Your task to perform on an android device: toggle pop-ups in chrome Image 0: 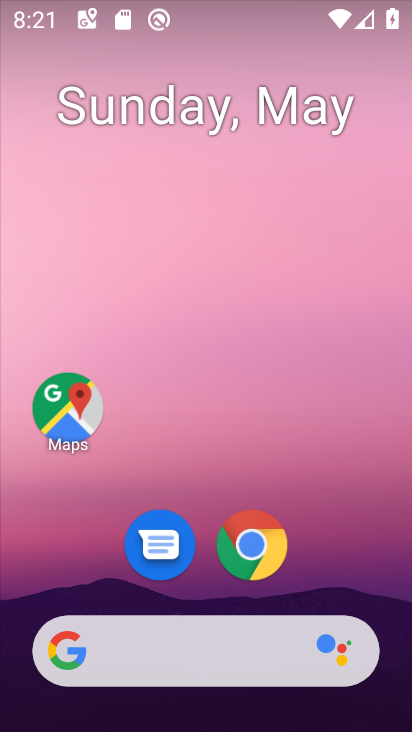
Step 0: click (274, 549)
Your task to perform on an android device: toggle pop-ups in chrome Image 1: 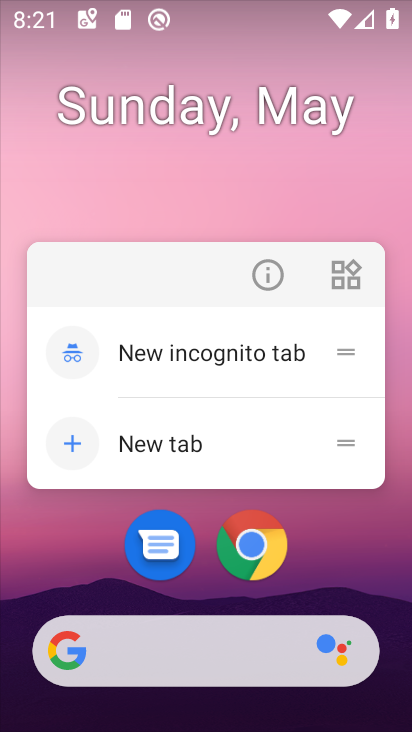
Step 1: click (272, 551)
Your task to perform on an android device: toggle pop-ups in chrome Image 2: 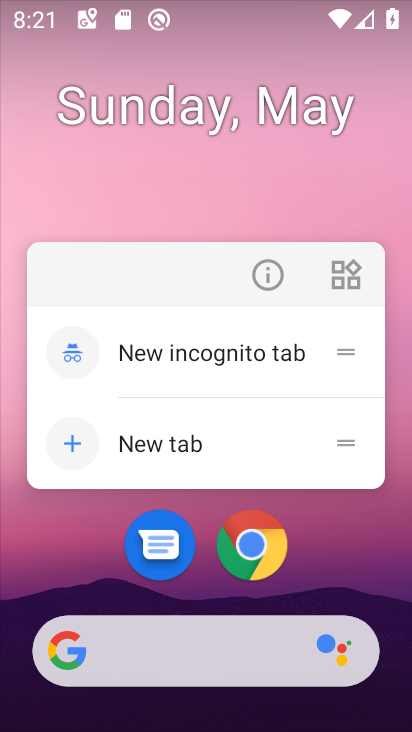
Step 2: click (271, 553)
Your task to perform on an android device: toggle pop-ups in chrome Image 3: 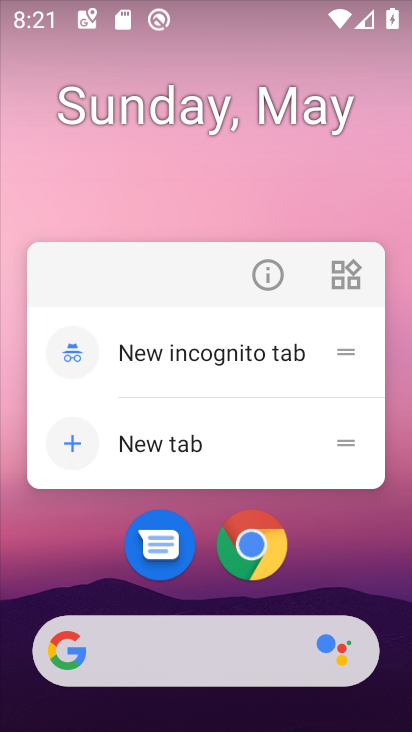
Step 3: click (251, 545)
Your task to perform on an android device: toggle pop-ups in chrome Image 4: 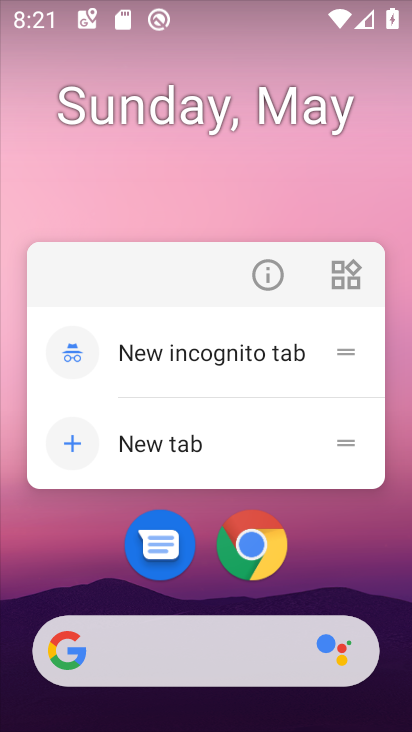
Step 4: click (298, 557)
Your task to perform on an android device: toggle pop-ups in chrome Image 5: 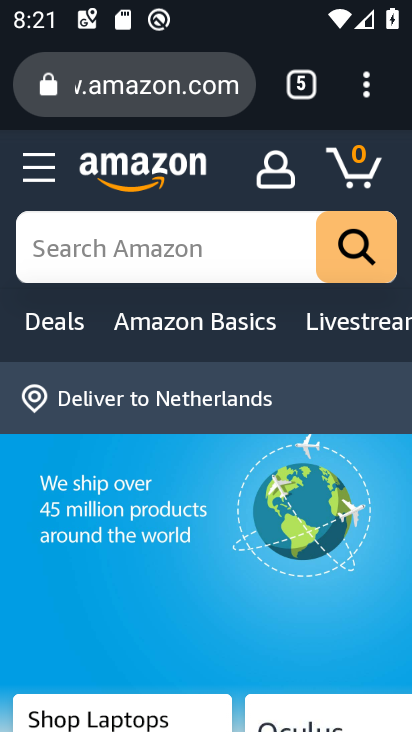
Step 5: drag from (371, 101) to (235, 594)
Your task to perform on an android device: toggle pop-ups in chrome Image 6: 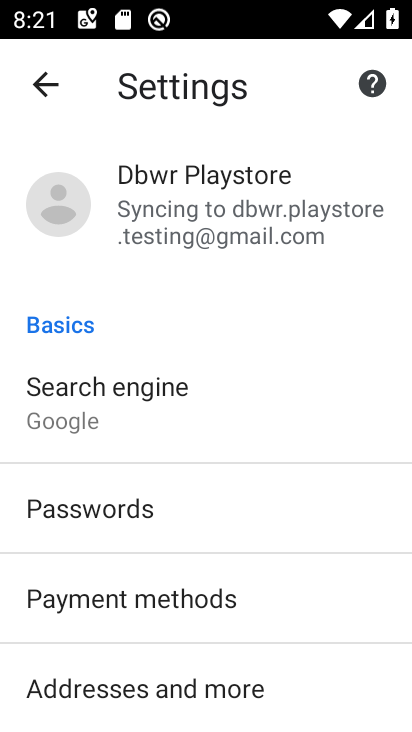
Step 6: drag from (234, 596) to (291, 185)
Your task to perform on an android device: toggle pop-ups in chrome Image 7: 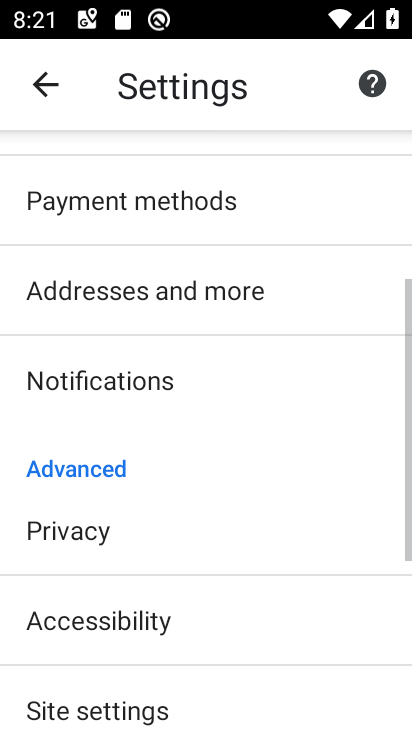
Step 7: drag from (193, 593) to (262, 293)
Your task to perform on an android device: toggle pop-ups in chrome Image 8: 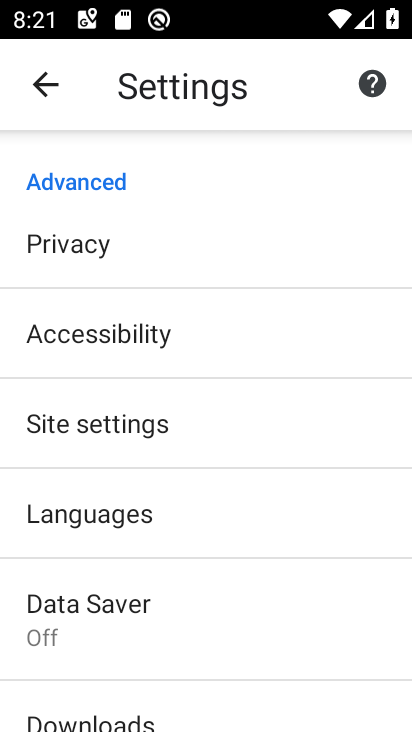
Step 8: drag from (223, 447) to (228, 398)
Your task to perform on an android device: toggle pop-ups in chrome Image 9: 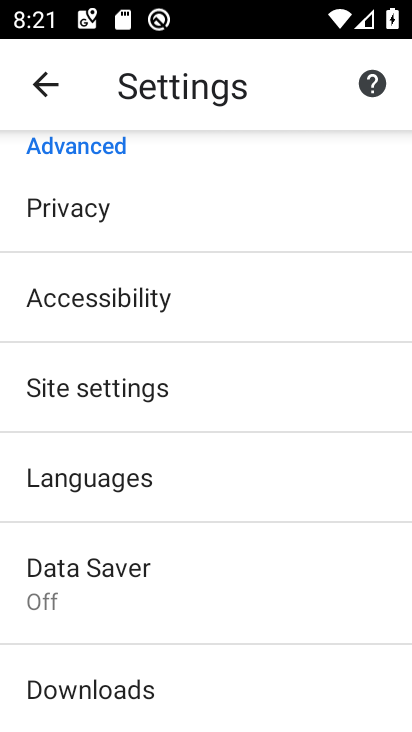
Step 9: click (224, 391)
Your task to perform on an android device: toggle pop-ups in chrome Image 10: 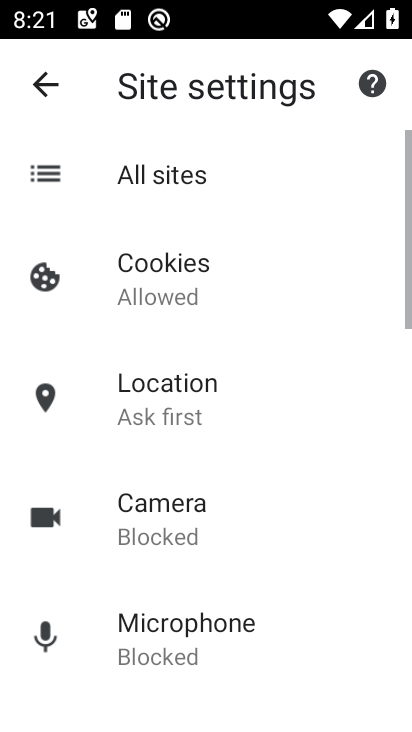
Step 10: drag from (227, 641) to (367, 201)
Your task to perform on an android device: toggle pop-ups in chrome Image 11: 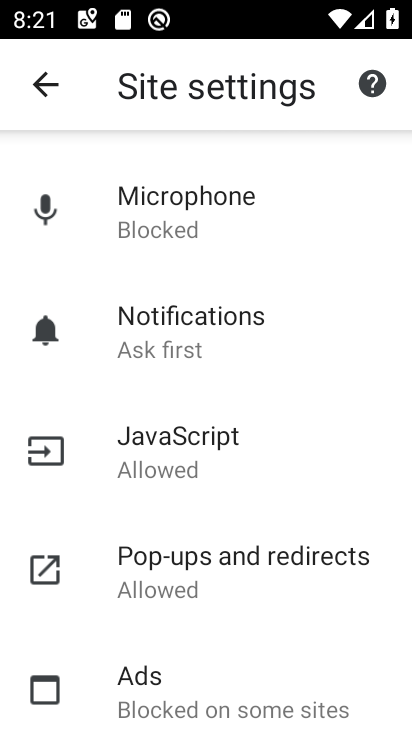
Step 11: click (274, 577)
Your task to perform on an android device: toggle pop-ups in chrome Image 12: 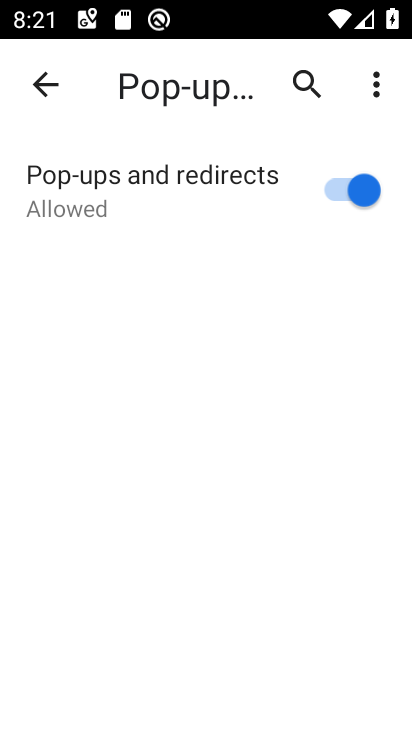
Step 12: task complete